Your task to perform on an android device: open sync settings in chrome Image 0: 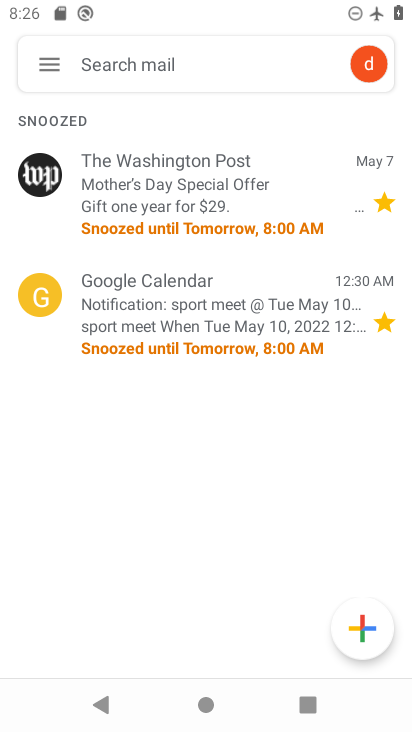
Step 0: press home button
Your task to perform on an android device: open sync settings in chrome Image 1: 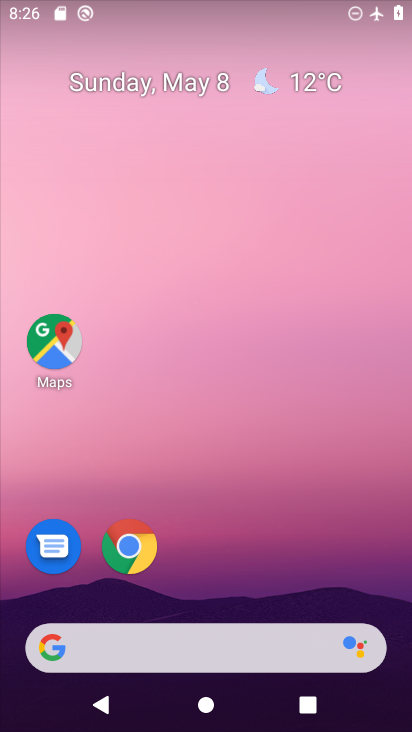
Step 1: click (136, 549)
Your task to perform on an android device: open sync settings in chrome Image 2: 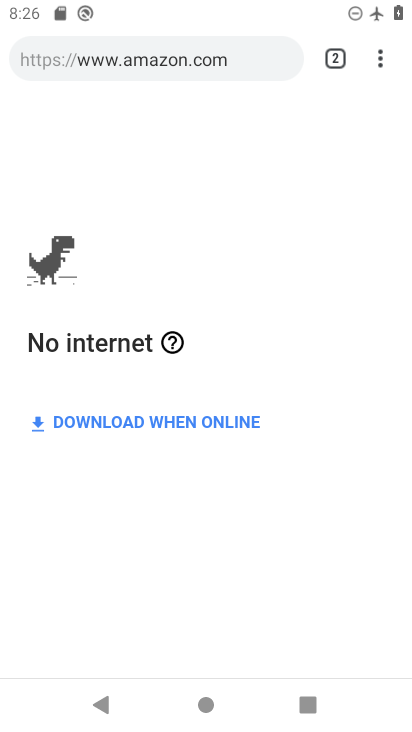
Step 2: click (380, 65)
Your task to perform on an android device: open sync settings in chrome Image 3: 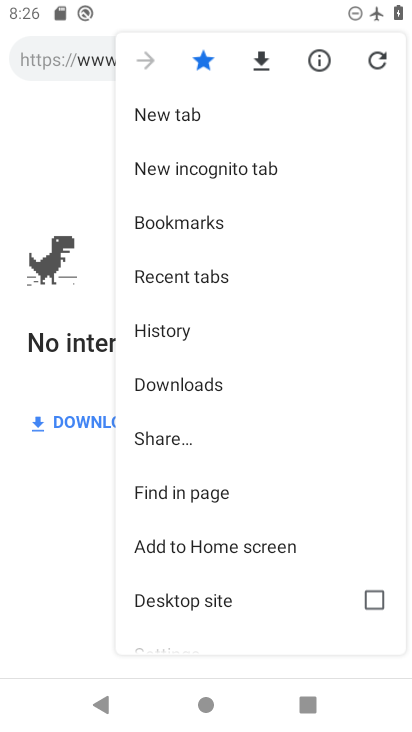
Step 3: drag from (269, 497) to (287, 159)
Your task to perform on an android device: open sync settings in chrome Image 4: 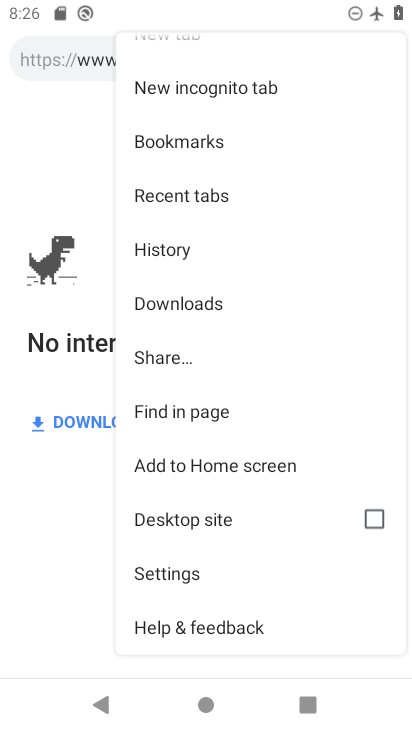
Step 4: click (205, 571)
Your task to perform on an android device: open sync settings in chrome Image 5: 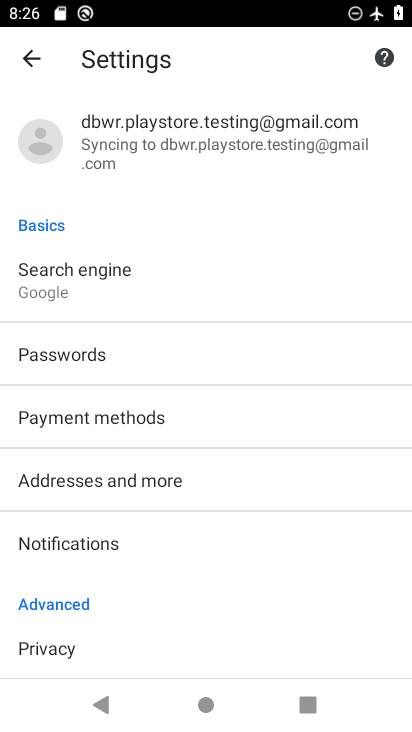
Step 5: click (239, 132)
Your task to perform on an android device: open sync settings in chrome Image 6: 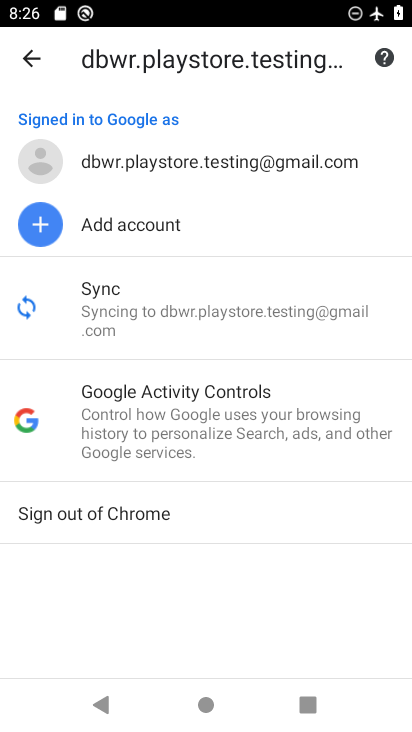
Step 6: click (161, 304)
Your task to perform on an android device: open sync settings in chrome Image 7: 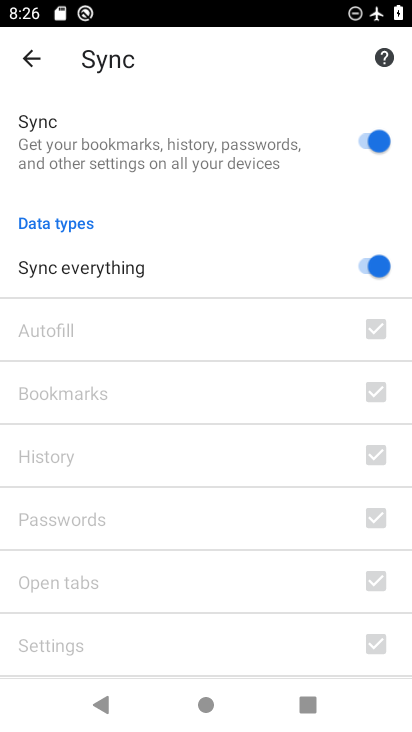
Step 7: task complete